Your task to perform on an android device: turn on sleep mode Image 0: 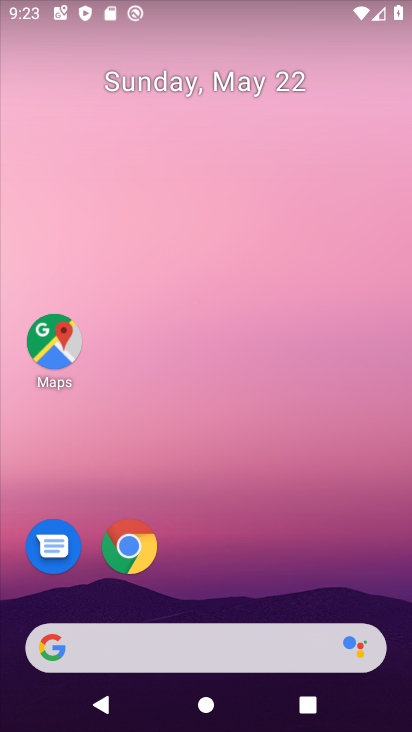
Step 0: drag from (208, 625) to (210, 200)
Your task to perform on an android device: turn on sleep mode Image 1: 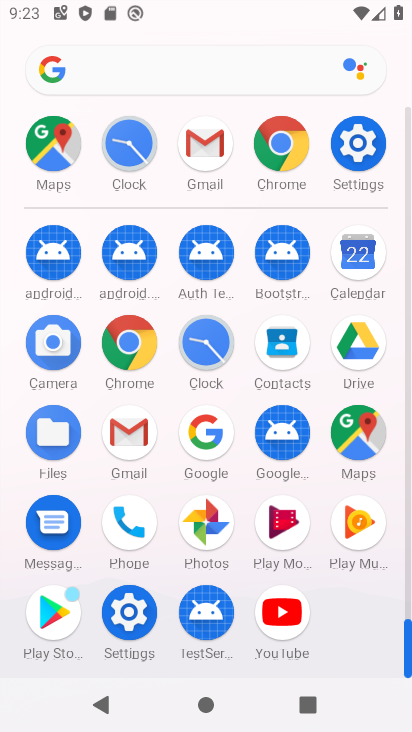
Step 1: click (358, 155)
Your task to perform on an android device: turn on sleep mode Image 2: 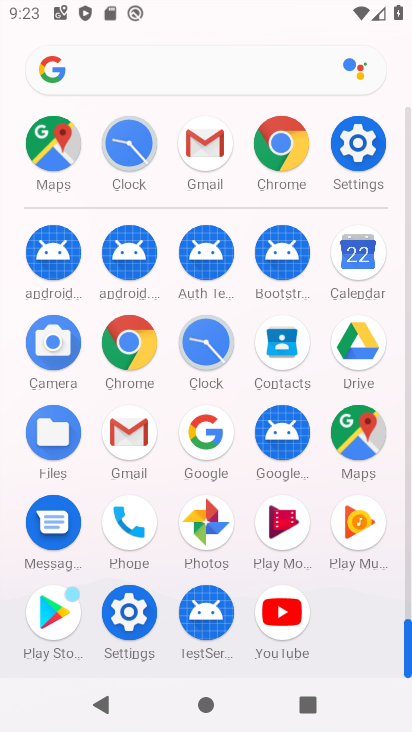
Step 2: click (358, 155)
Your task to perform on an android device: turn on sleep mode Image 3: 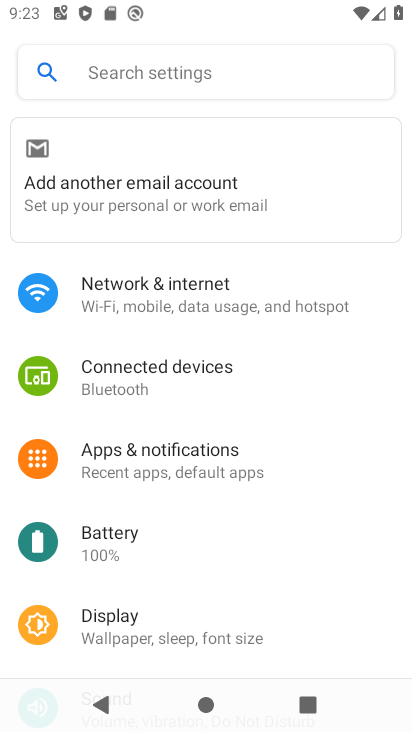
Step 3: drag from (211, 639) to (256, 117)
Your task to perform on an android device: turn on sleep mode Image 4: 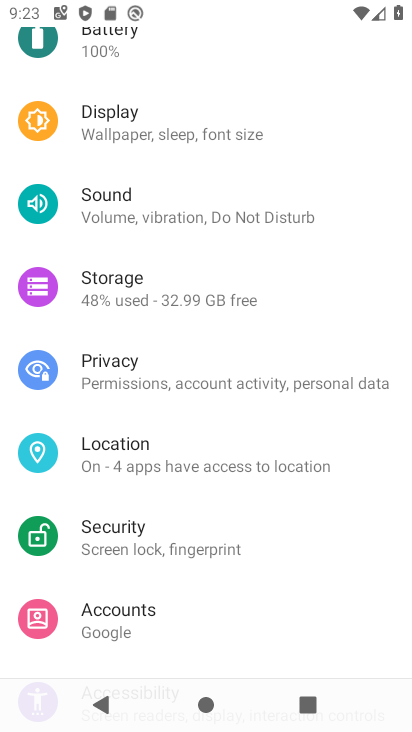
Step 4: drag from (232, 548) to (265, 69)
Your task to perform on an android device: turn on sleep mode Image 5: 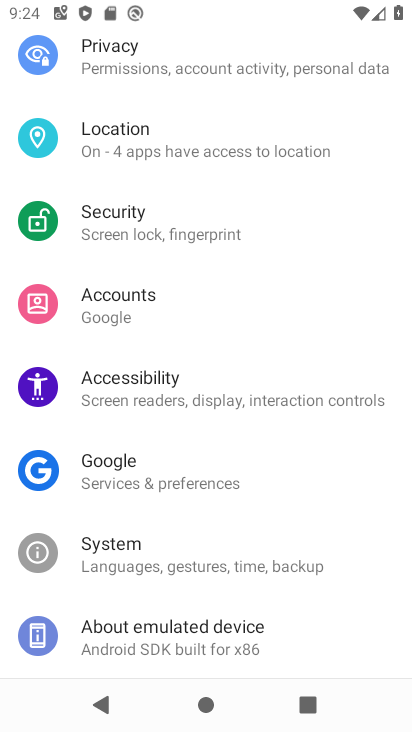
Step 5: drag from (211, 571) to (238, 129)
Your task to perform on an android device: turn on sleep mode Image 6: 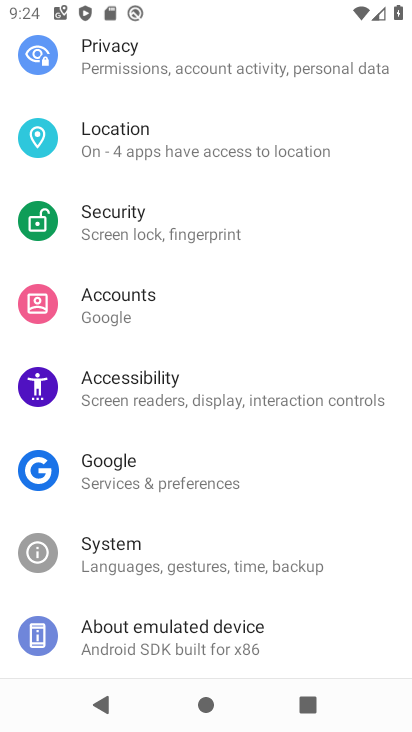
Step 6: drag from (241, 91) to (261, 652)
Your task to perform on an android device: turn on sleep mode Image 7: 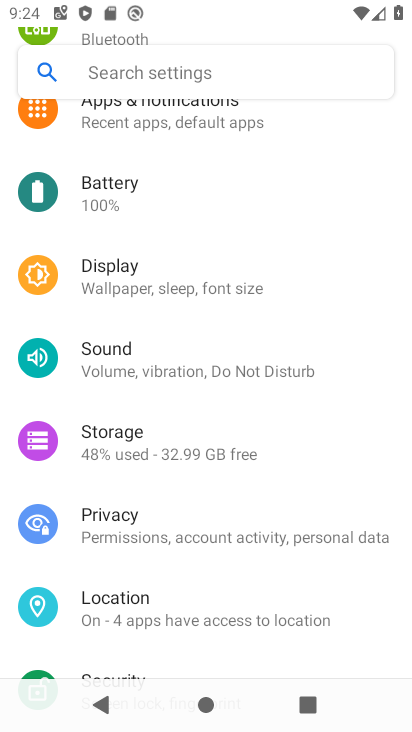
Step 7: drag from (173, 181) to (408, 524)
Your task to perform on an android device: turn on sleep mode Image 8: 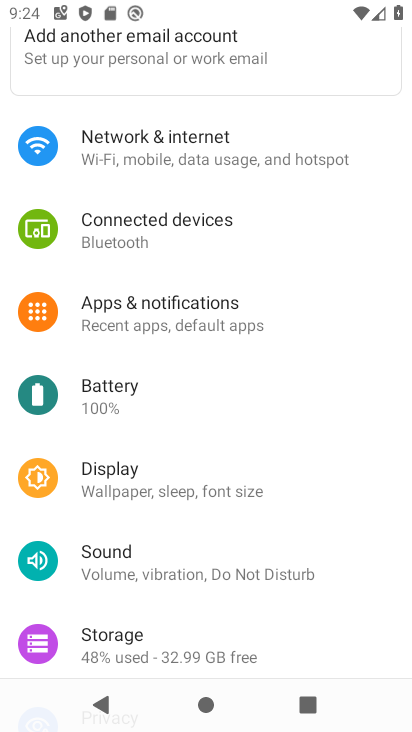
Step 8: drag from (296, 214) to (265, 668)
Your task to perform on an android device: turn on sleep mode Image 9: 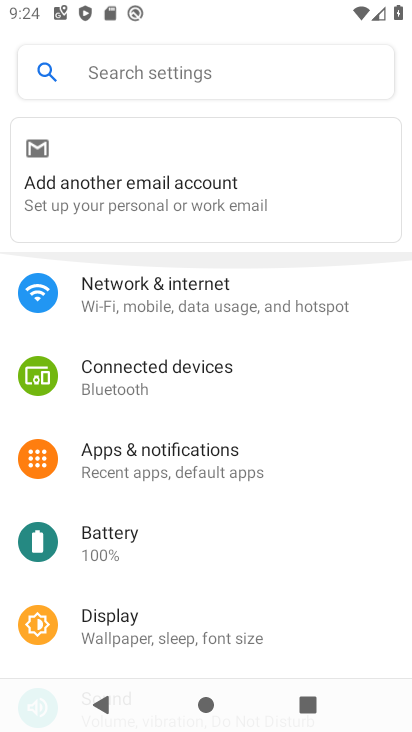
Step 9: drag from (219, 630) to (285, 200)
Your task to perform on an android device: turn on sleep mode Image 10: 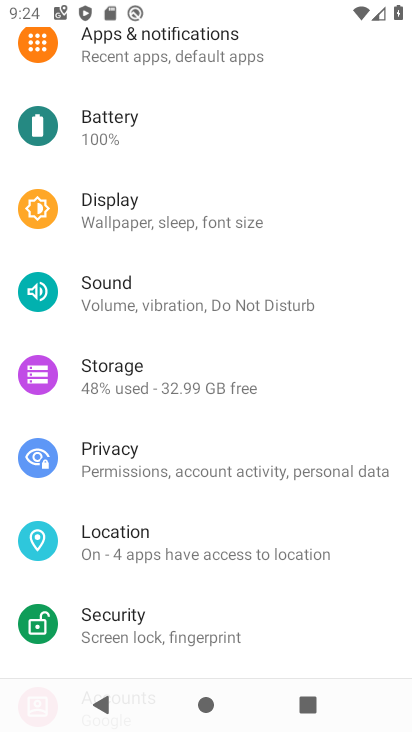
Step 10: click (193, 207)
Your task to perform on an android device: turn on sleep mode Image 11: 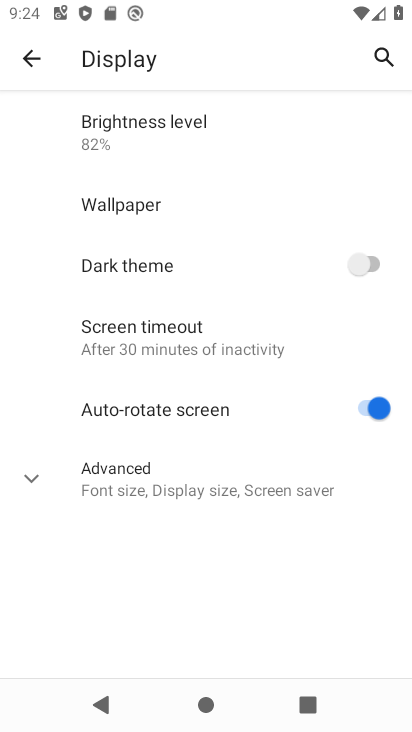
Step 11: click (208, 316)
Your task to perform on an android device: turn on sleep mode Image 12: 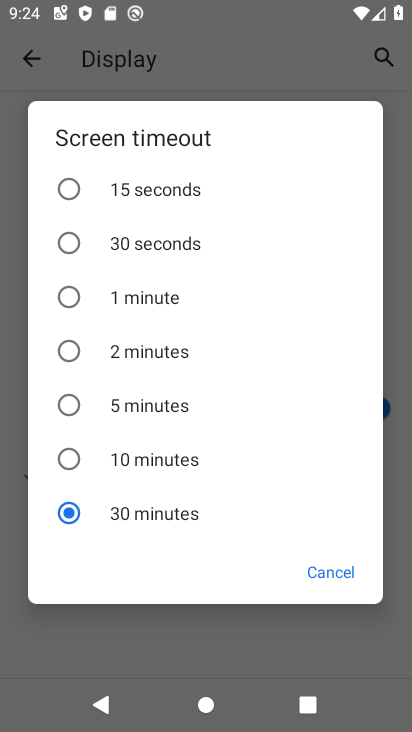
Step 12: task complete